Your task to perform on an android device: Go to display settings Image 0: 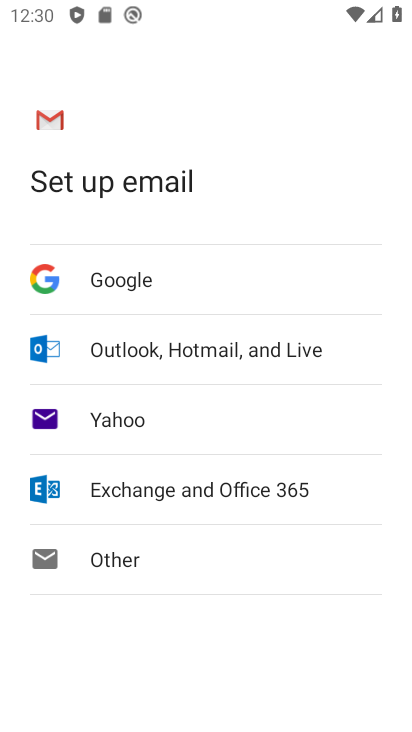
Step 0: press home button
Your task to perform on an android device: Go to display settings Image 1: 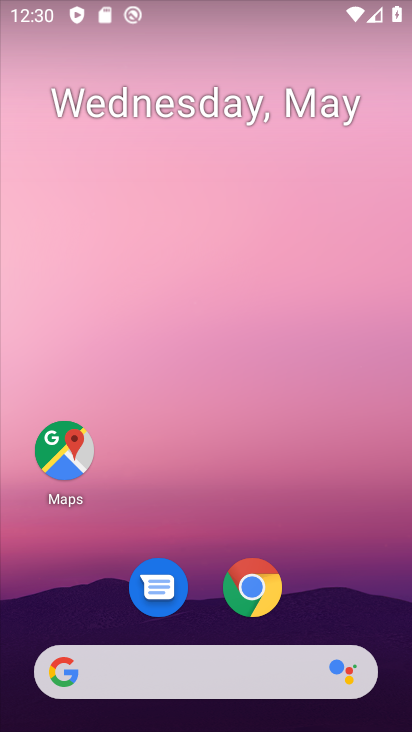
Step 1: drag from (359, 544) to (376, 165)
Your task to perform on an android device: Go to display settings Image 2: 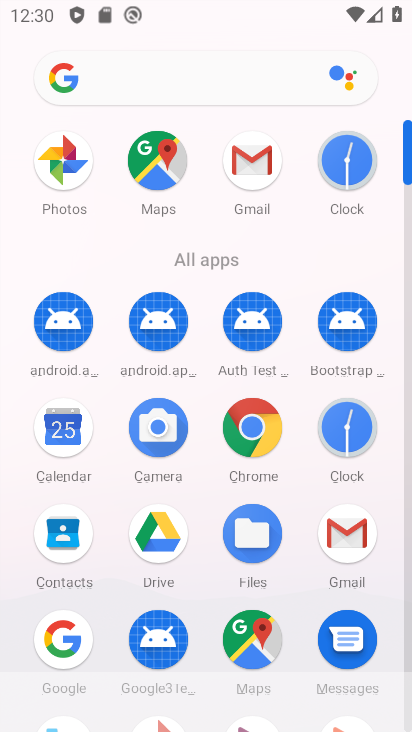
Step 2: drag from (205, 577) to (209, 286)
Your task to perform on an android device: Go to display settings Image 3: 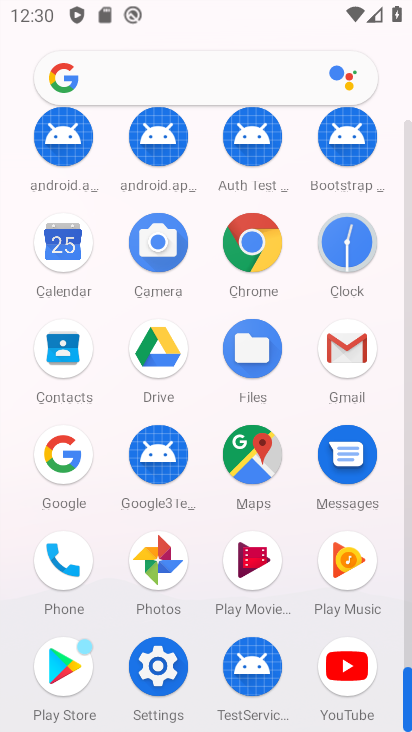
Step 3: click (167, 653)
Your task to perform on an android device: Go to display settings Image 4: 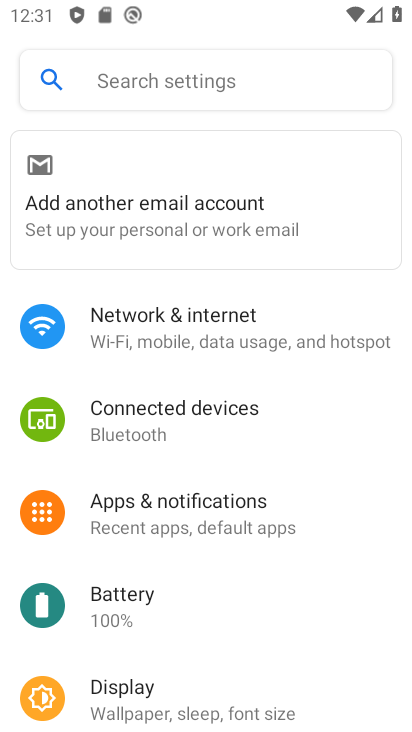
Step 4: drag from (344, 632) to (350, 499)
Your task to perform on an android device: Go to display settings Image 5: 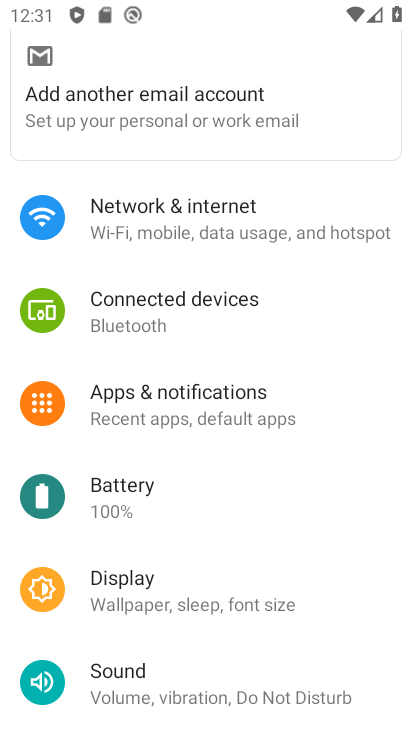
Step 5: drag from (338, 639) to (347, 470)
Your task to perform on an android device: Go to display settings Image 6: 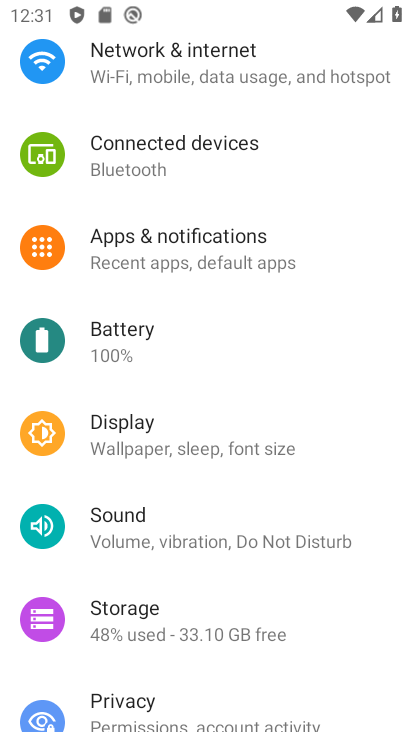
Step 6: drag from (368, 631) to (372, 534)
Your task to perform on an android device: Go to display settings Image 7: 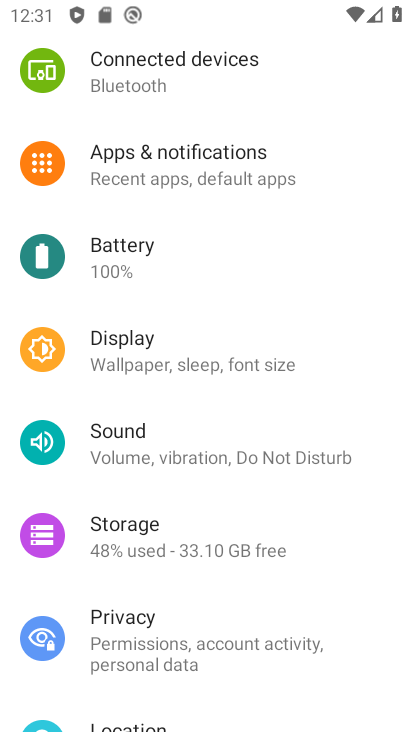
Step 7: drag from (342, 665) to (376, 515)
Your task to perform on an android device: Go to display settings Image 8: 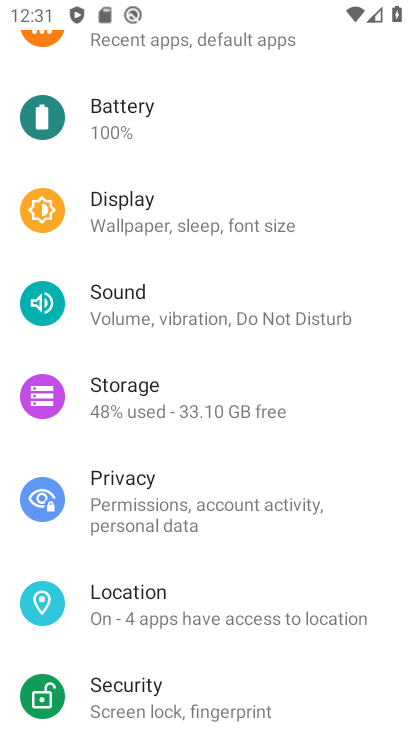
Step 8: drag from (343, 664) to (346, 496)
Your task to perform on an android device: Go to display settings Image 9: 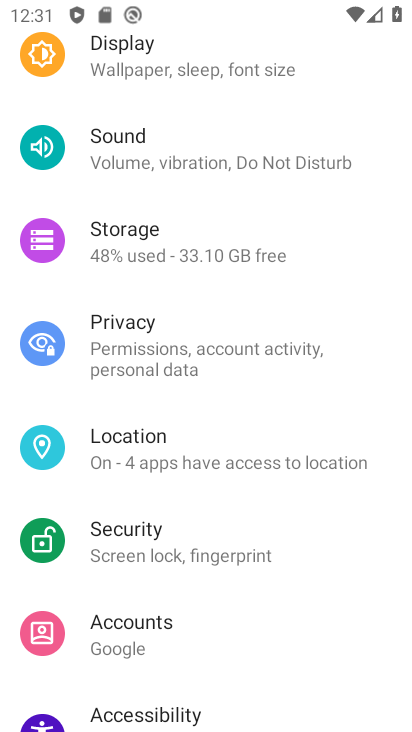
Step 9: drag from (371, 125) to (365, 280)
Your task to perform on an android device: Go to display settings Image 10: 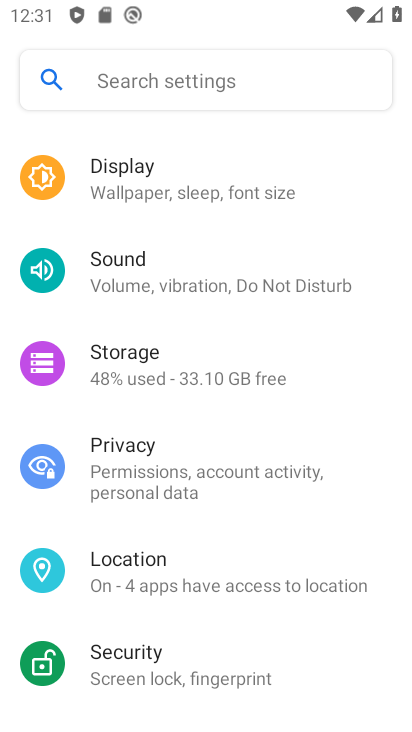
Step 10: click (223, 210)
Your task to perform on an android device: Go to display settings Image 11: 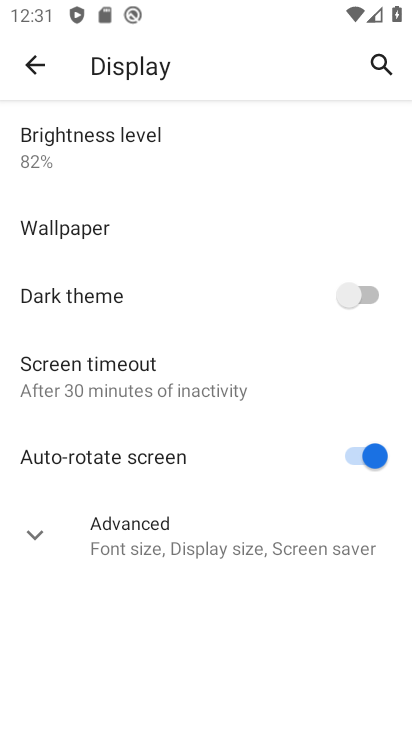
Step 11: click (205, 547)
Your task to perform on an android device: Go to display settings Image 12: 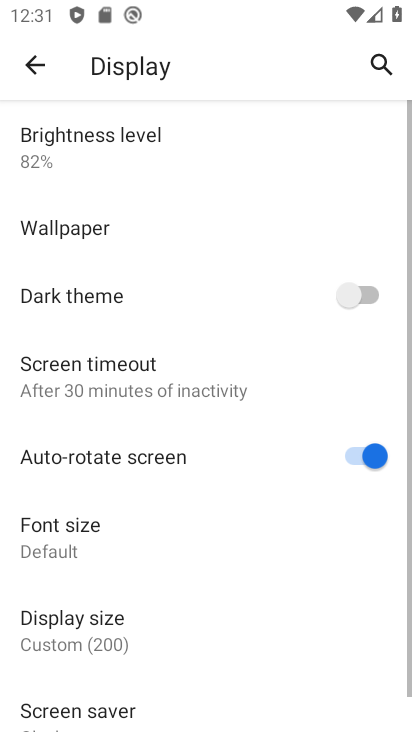
Step 12: task complete